Your task to perform on an android device: toggle location history Image 0: 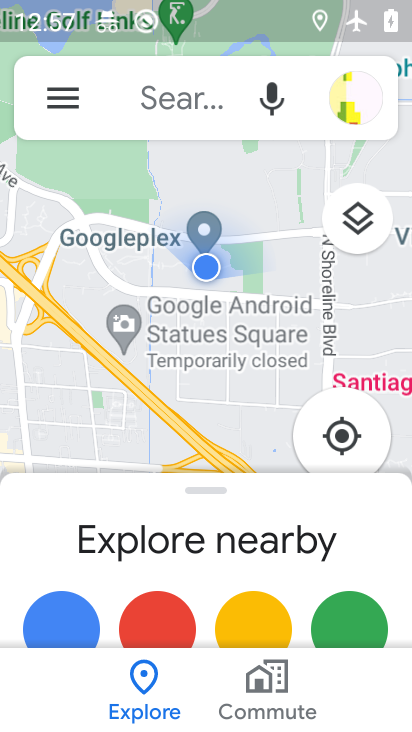
Step 0: click (60, 94)
Your task to perform on an android device: toggle location history Image 1: 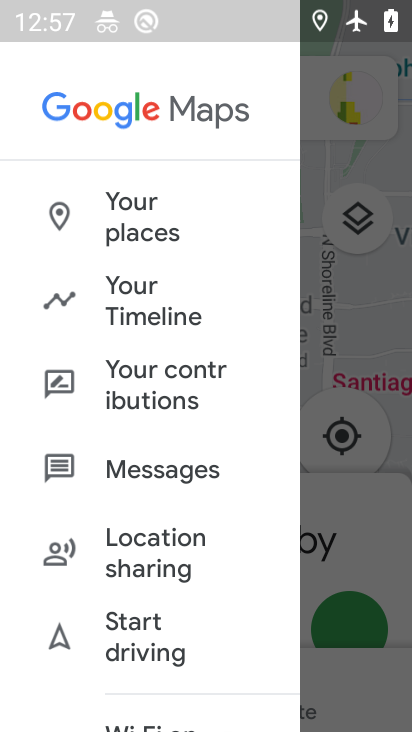
Step 1: click (142, 302)
Your task to perform on an android device: toggle location history Image 2: 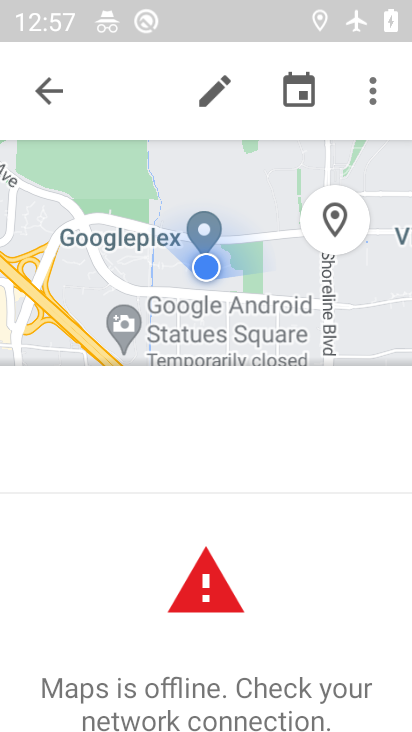
Step 2: click (55, 93)
Your task to perform on an android device: toggle location history Image 3: 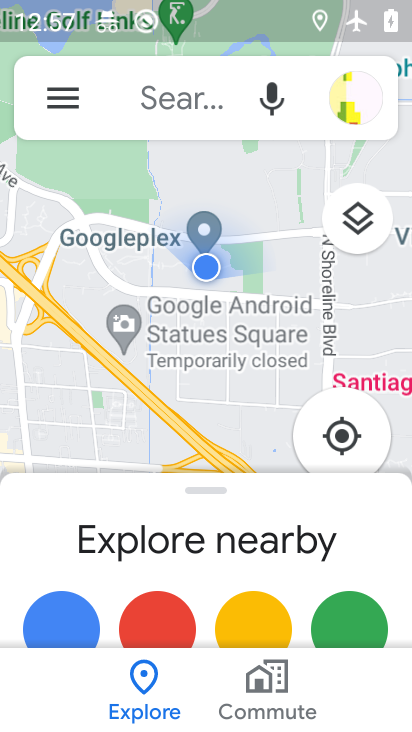
Step 3: drag from (55, 101) to (93, 418)
Your task to perform on an android device: toggle location history Image 4: 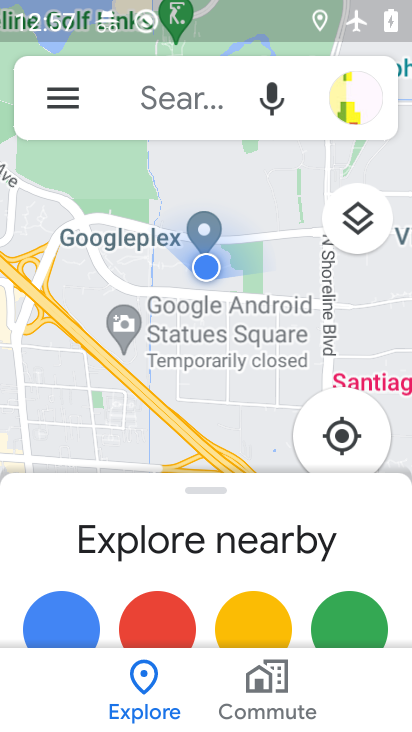
Step 4: click (53, 89)
Your task to perform on an android device: toggle location history Image 5: 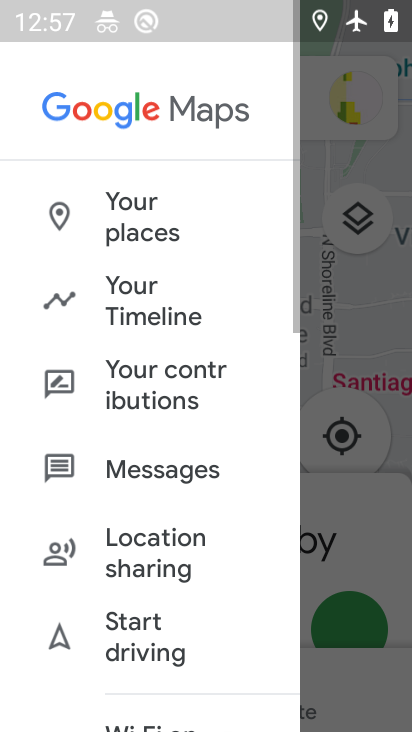
Step 5: click (57, 96)
Your task to perform on an android device: toggle location history Image 6: 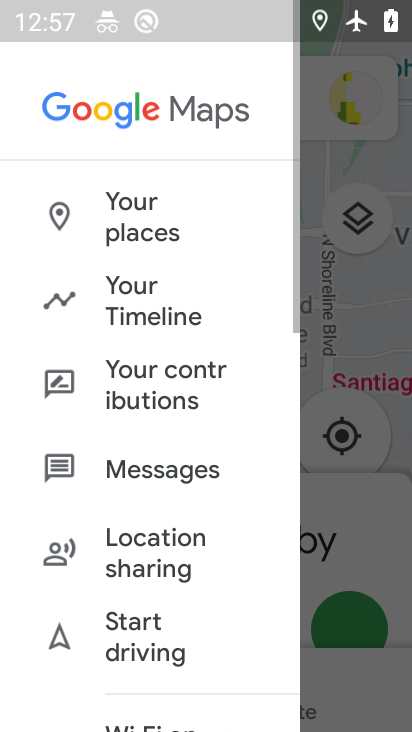
Step 6: click (60, 95)
Your task to perform on an android device: toggle location history Image 7: 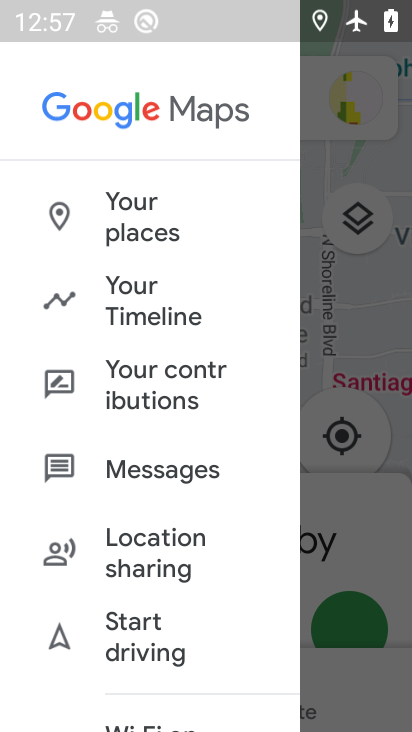
Step 7: click (61, 94)
Your task to perform on an android device: toggle location history Image 8: 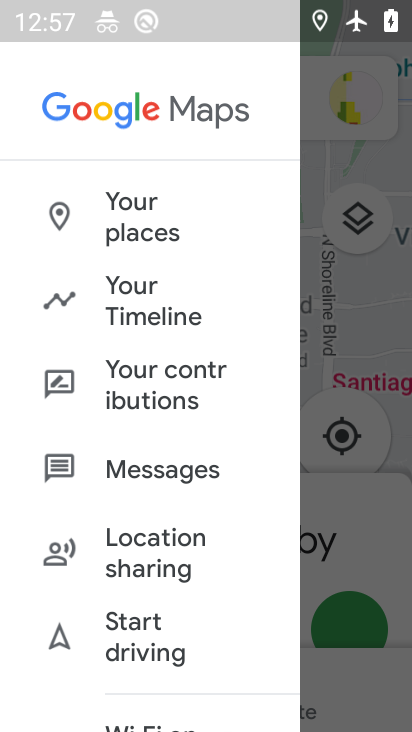
Step 8: click (136, 306)
Your task to perform on an android device: toggle location history Image 9: 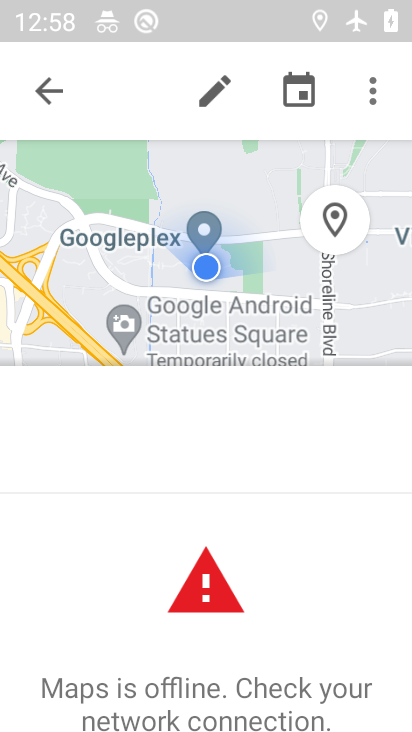
Step 9: click (374, 87)
Your task to perform on an android device: toggle location history Image 10: 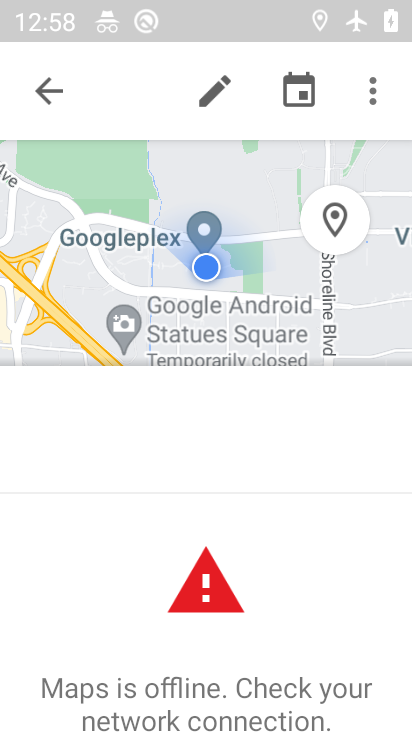
Step 10: drag from (375, 83) to (177, 406)
Your task to perform on an android device: toggle location history Image 11: 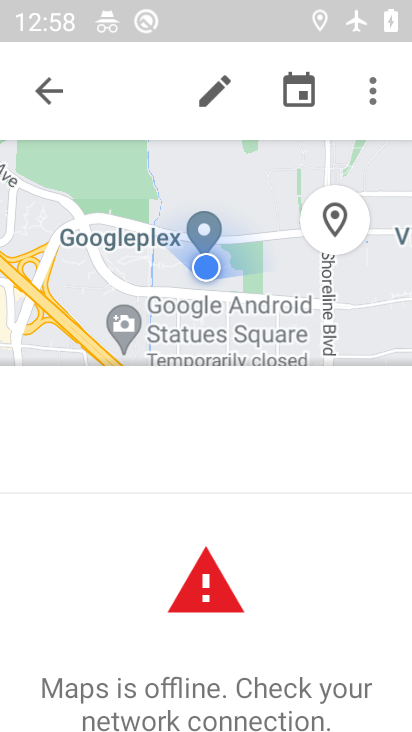
Step 11: click (360, 94)
Your task to perform on an android device: toggle location history Image 12: 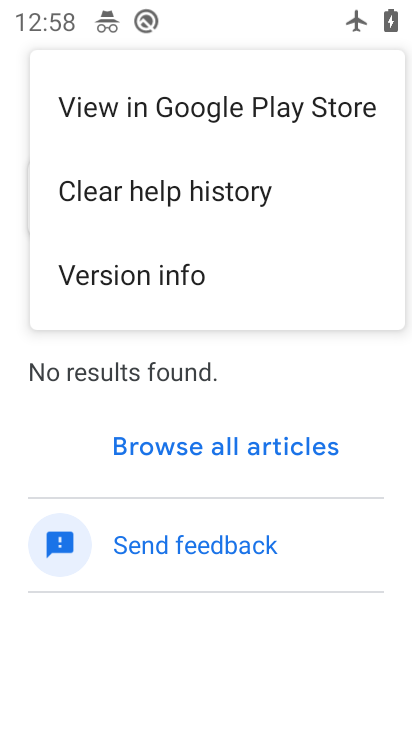
Step 12: click (315, 628)
Your task to perform on an android device: toggle location history Image 13: 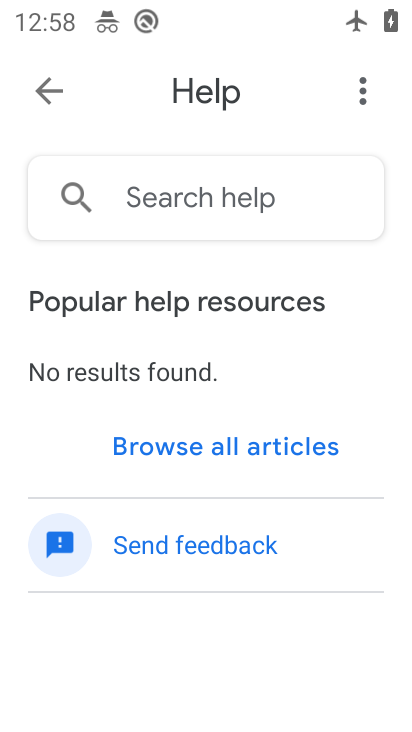
Step 13: click (289, 667)
Your task to perform on an android device: toggle location history Image 14: 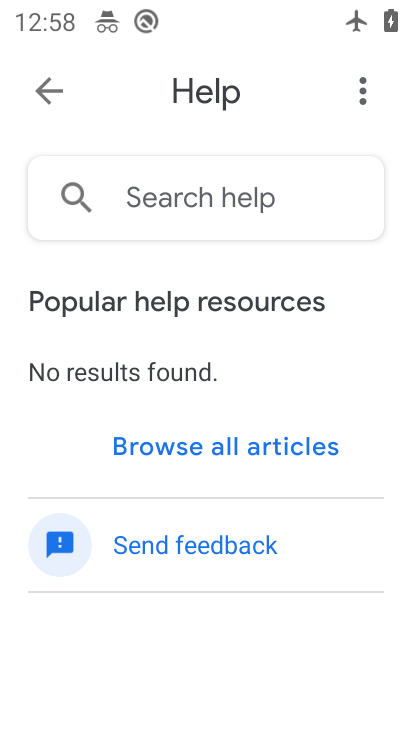
Step 14: click (44, 84)
Your task to perform on an android device: toggle location history Image 15: 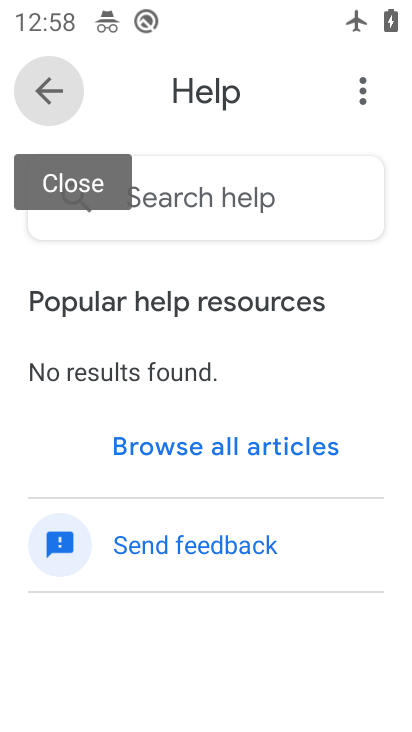
Step 15: click (44, 84)
Your task to perform on an android device: toggle location history Image 16: 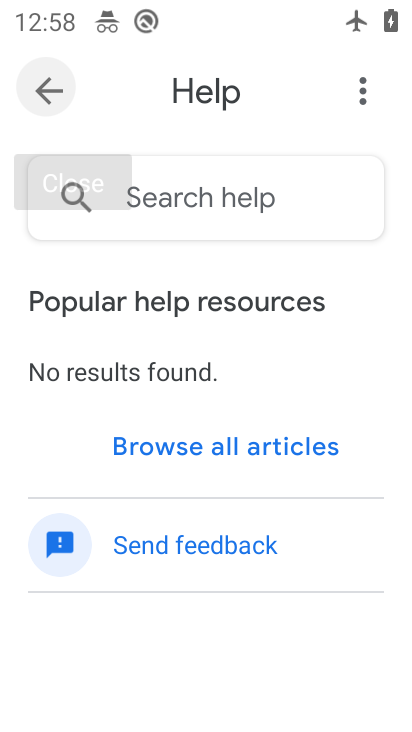
Step 16: click (44, 84)
Your task to perform on an android device: toggle location history Image 17: 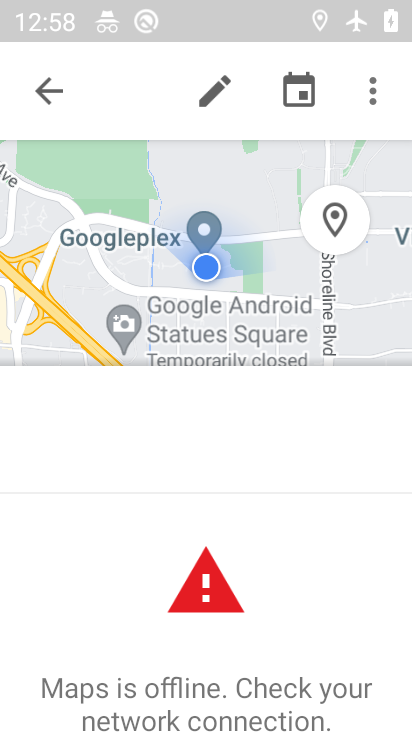
Step 17: click (32, 95)
Your task to perform on an android device: toggle location history Image 18: 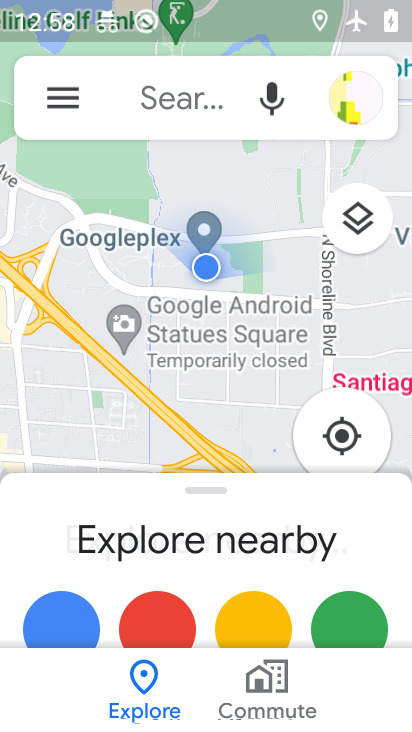
Step 18: click (372, 94)
Your task to perform on an android device: toggle location history Image 19: 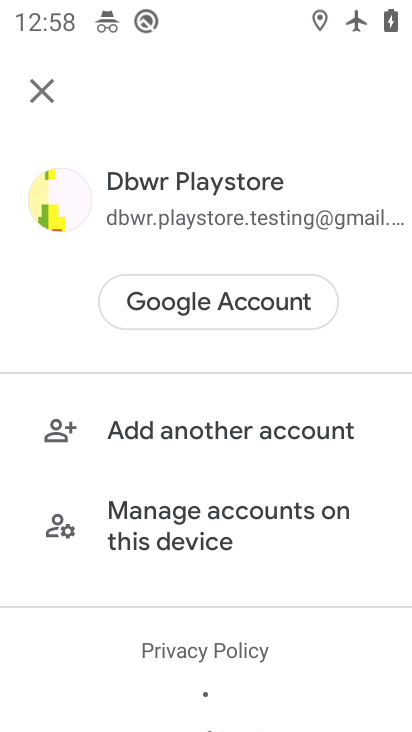
Step 19: click (56, 90)
Your task to perform on an android device: toggle location history Image 20: 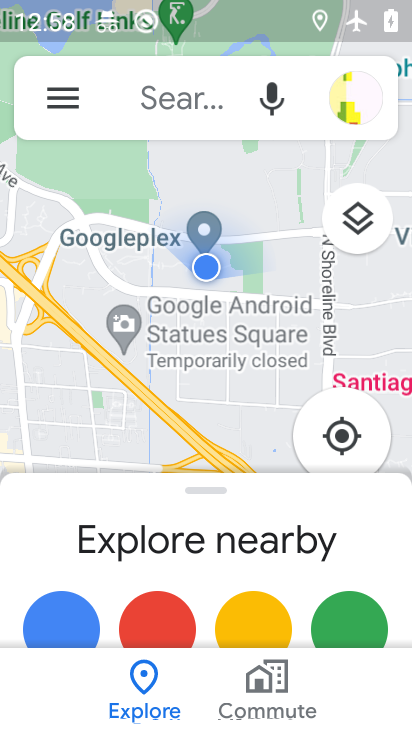
Step 20: drag from (65, 98) to (59, 324)
Your task to perform on an android device: toggle location history Image 21: 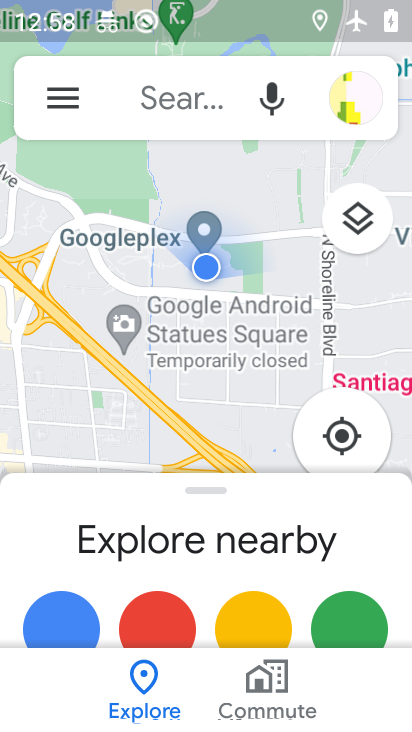
Step 21: click (56, 105)
Your task to perform on an android device: toggle location history Image 22: 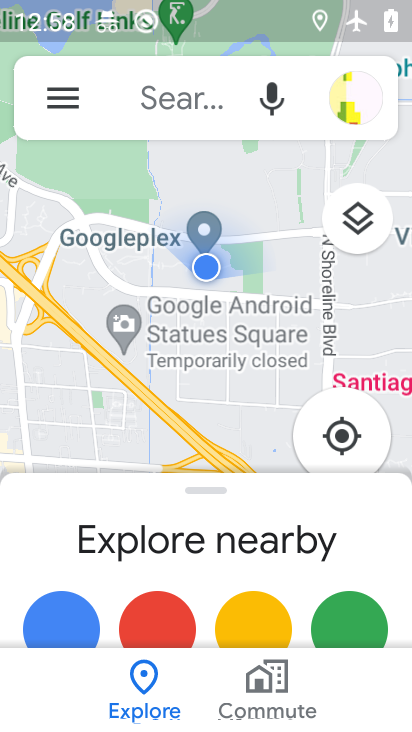
Step 22: click (56, 105)
Your task to perform on an android device: toggle location history Image 23: 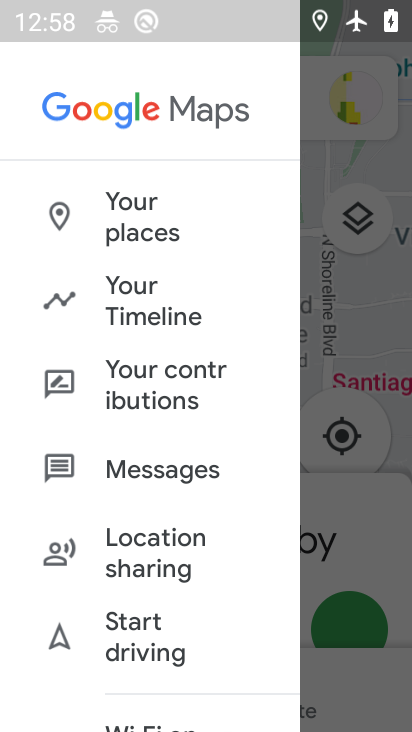
Step 23: click (139, 312)
Your task to perform on an android device: toggle location history Image 24: 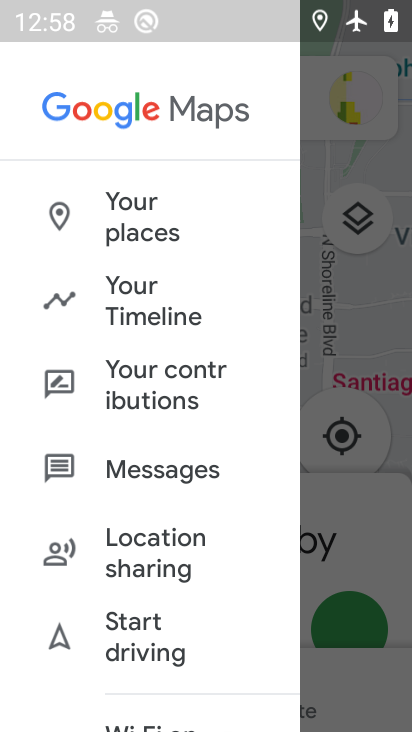
Step 24: click (139, 312)
Your task to perform on an android device: toggle location history Image 25: 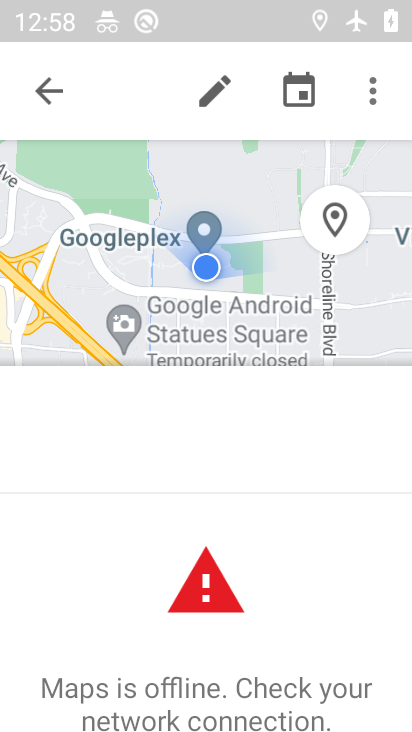
Step 25: click (366, 92)
Your task to perform on an android device: toggle location history Image 26: 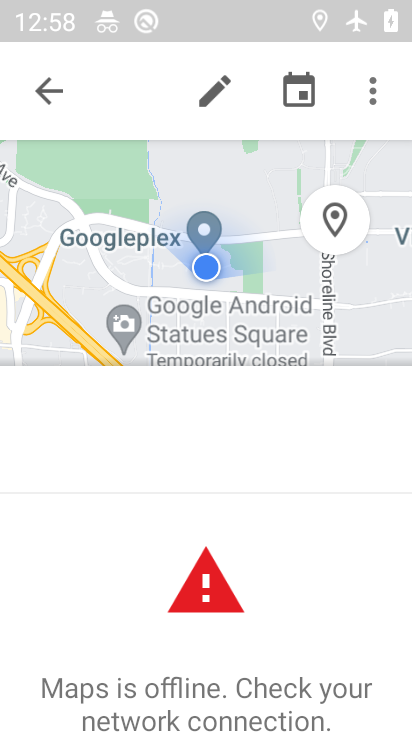
Step 26: click (370, 91)
Your task to perform on an android device: toggle location history Image 27: 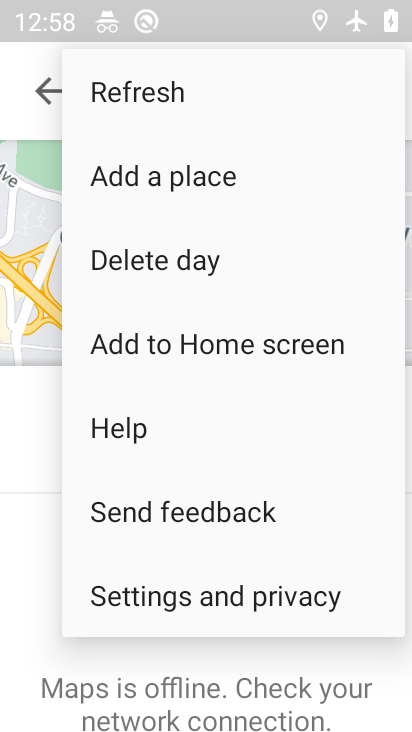
Step 27: click (370, 91)
Your task to perform on an android device: toggle location history Image 28: 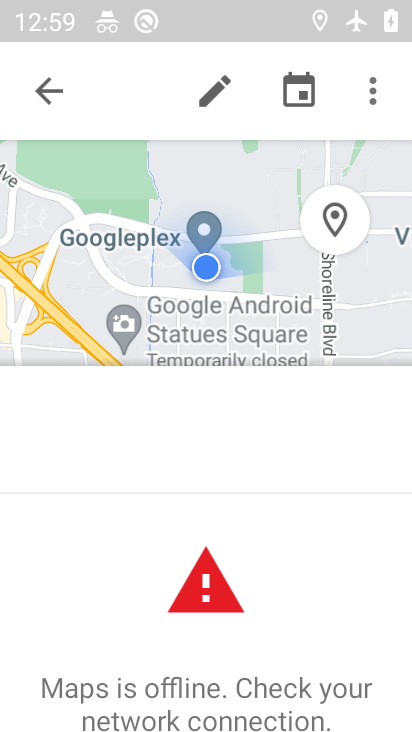
Step 28: click (366, 90)
Your task to perform on an android device: toggle location history Image 29: 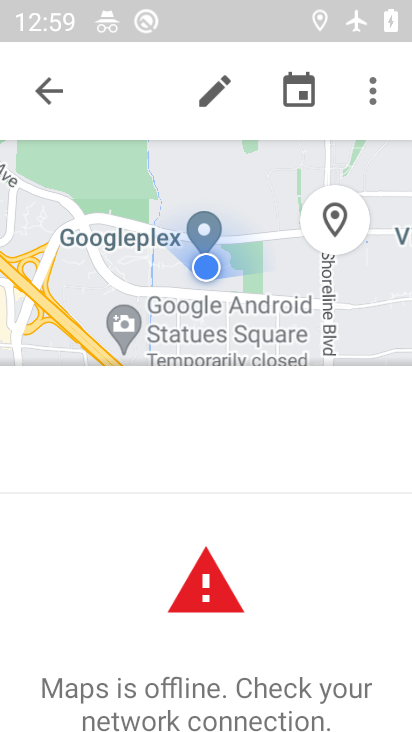
Step 29: click (366, 90)
Your task to perform on an android device: toggle location history Image 30: 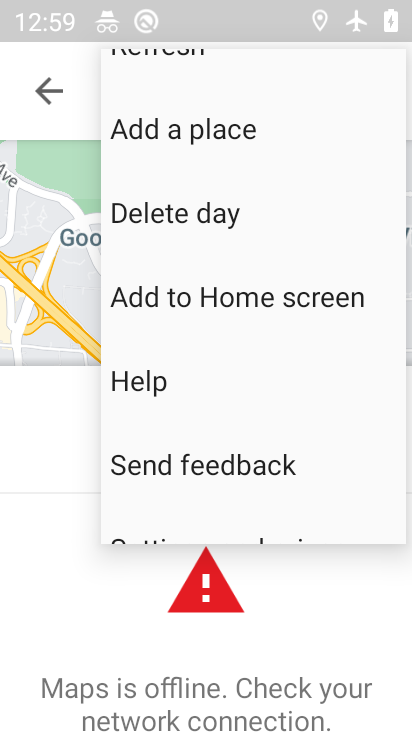
Step 30: click (366, 90)
Your task to perform on an android device: toggle location history Image 31: 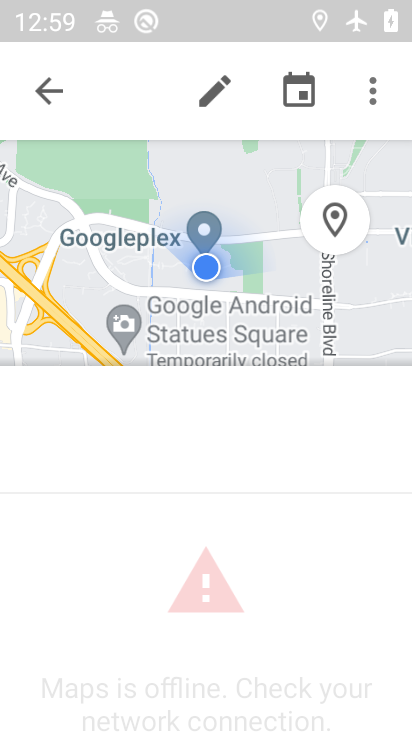
Step 31: drag from (247, 494) to (261, 133)
Your task to perform on an android device: toggle location history Image 32: 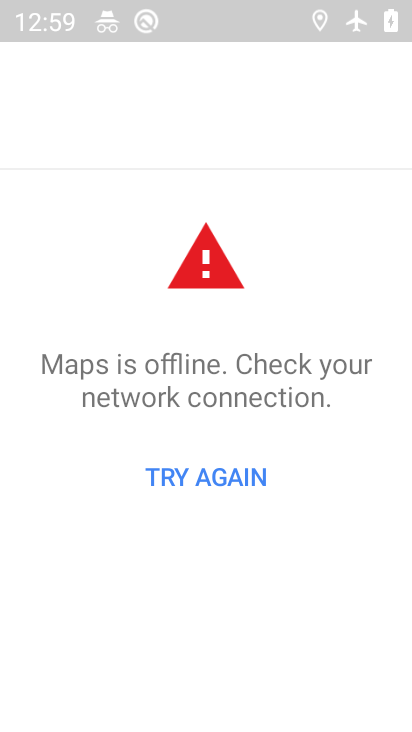
Step 32: click (368, 87)
Your task to perform on an android device: toggle location history Image 33: 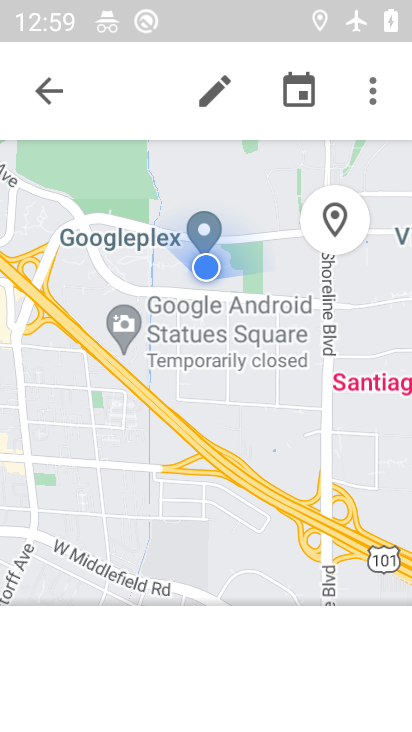
Step 33: task complete